Your task to perform on an android device: turn off javascript in the chrome app Image 0: 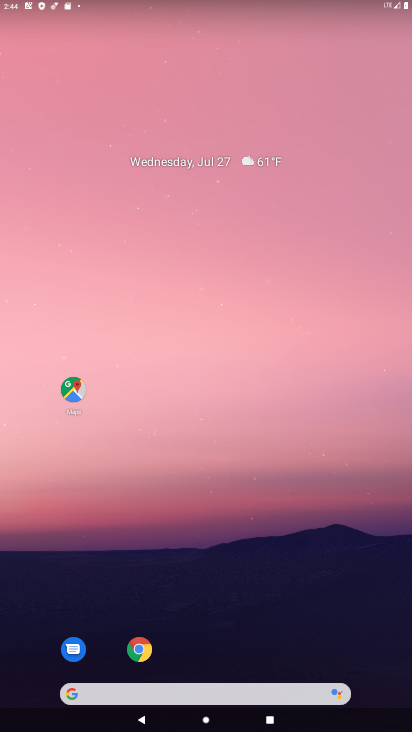
Step 0: click (136, 652)
Your task to perform on an android device: turn off javascript in the chrome app Image 1: 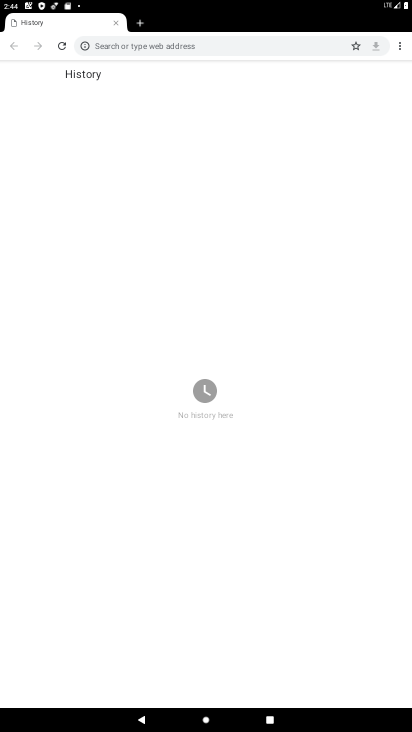
Step 1: click (398, 47)
Your task to perform on an android device: turn off javascript in the chrome app Image 2: 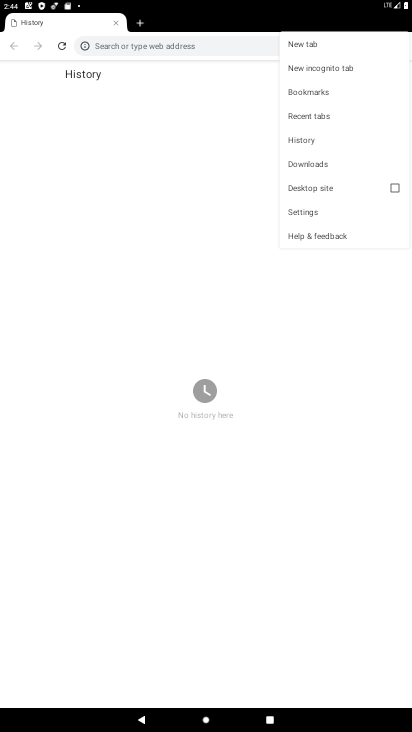
Step 2: click (298, 211)
Your task to perform on an android device: turn off javascript in the chrome app Image 3: 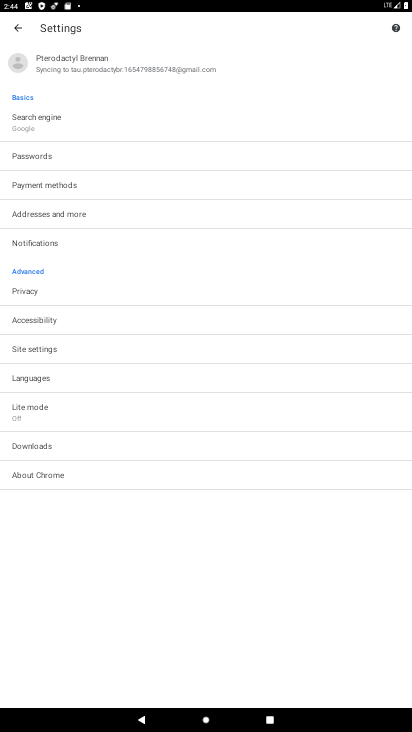
Step 3: click (29, 353)
Your task to perform on an android device: turn off javascript in the chrome app Image 4: 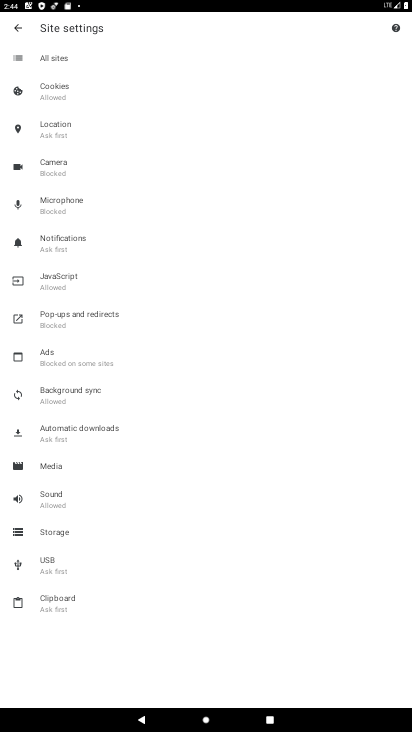
Step 4: click (52, 277)
Your task to perform on an android device: turn off javascript in the chrome app Image 5: 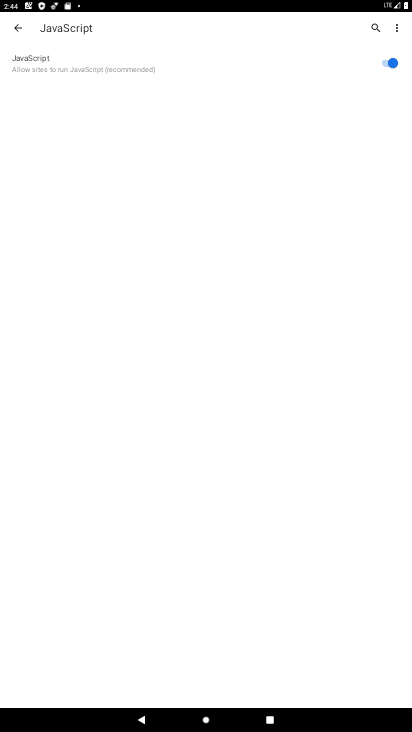
Step 5: click (380, 70)
Your task to perform on an android device: turn off javascript in the chrome app Image 6: 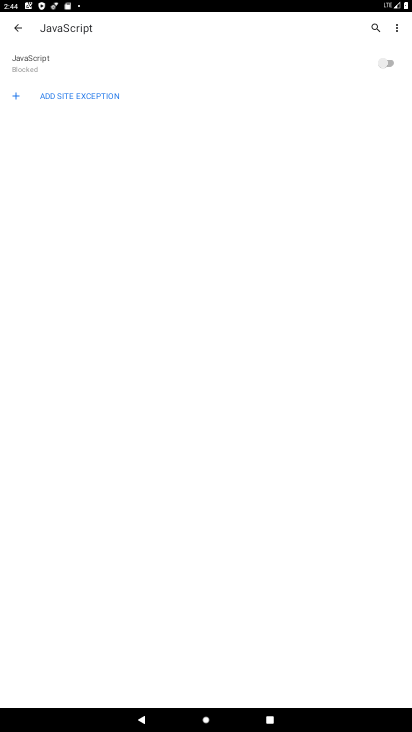
Step 6: task complete